Your task to perform on an android device: Open wifi settings Image 0: 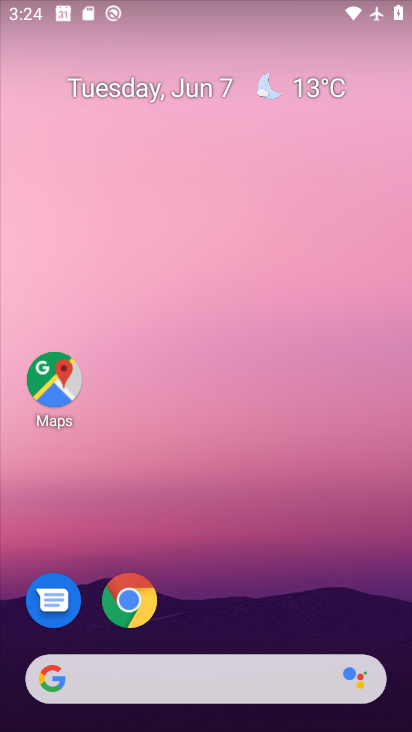
Step 0: drag from (239, 535) to (195, 83)
Your task to perform on an android device: Open wifi settings Image 1: 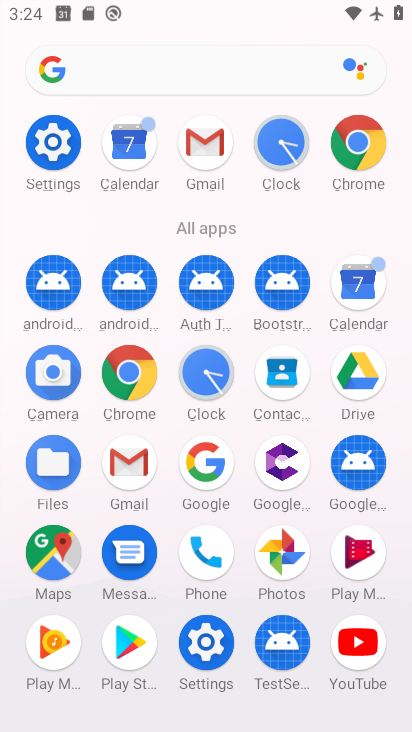
Step 1: click (61, 143)
Your task to perform on an android device: Open wifi settings Image 2: 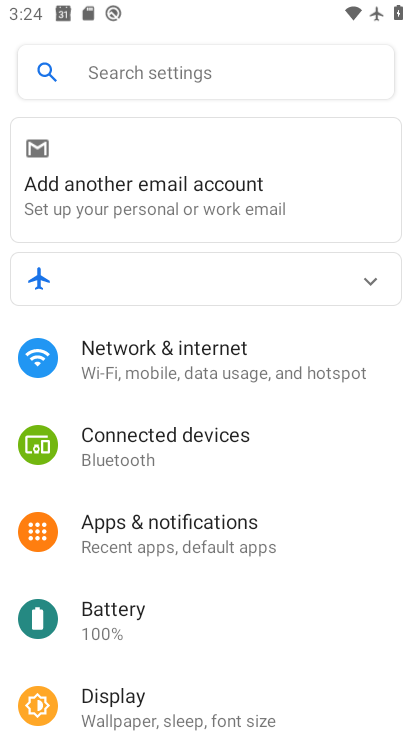
Step 2: click (228, 384)
Your task to perform on an android device: Open wifi settings Image 3: 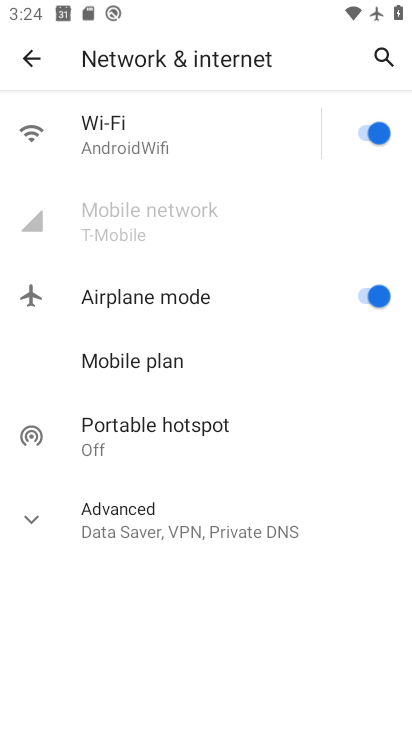
Step 3: click (258, 133)
Your task to perform on an android device: Open wifi settings Image 4: 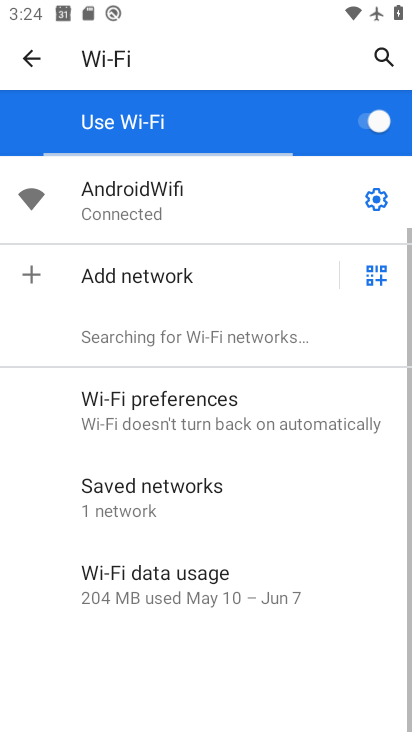
Step 4: click (375, 204)
Your task to perform on an android device: Open wifi settings Image 5: 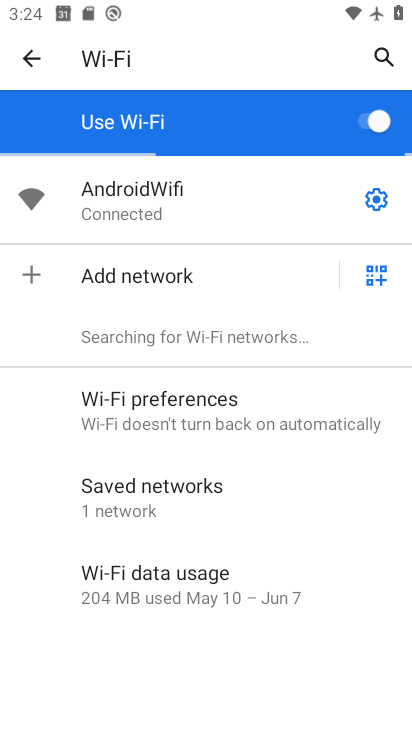
Step 5: click (380, 195)
Your task to perform on an android device: Open wifi settings Image 6: 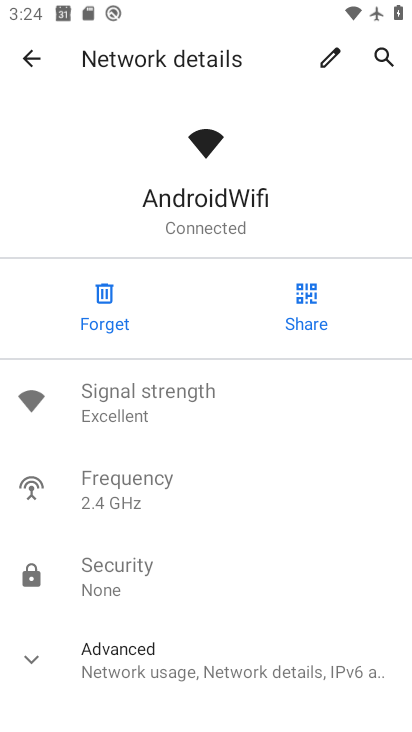
Step 6: task complete